Your task to perform on an android device: check battery use Image 0: 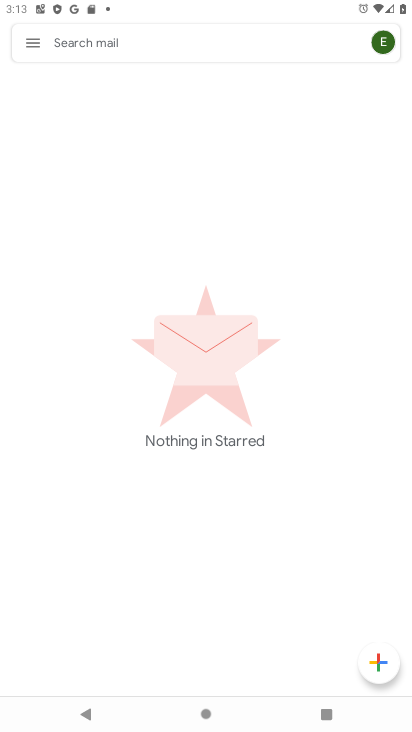
Step 0: press home button
Your task to perform on an android device: check battery use Image 1: 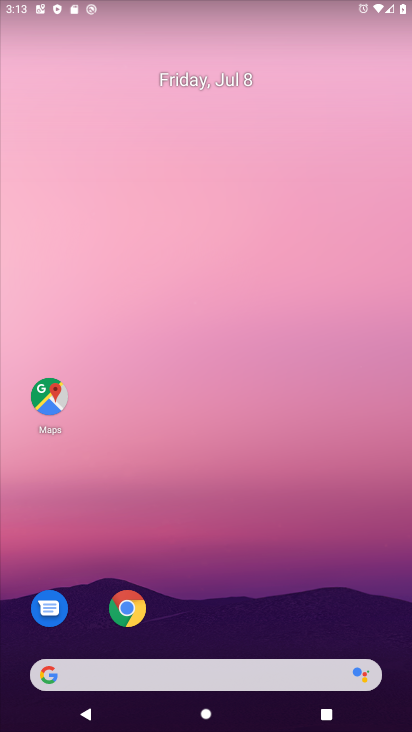
Step 1: drag from (295, 656) to (310, 95)
Your task to perform on an android device: check battery use Image 2: 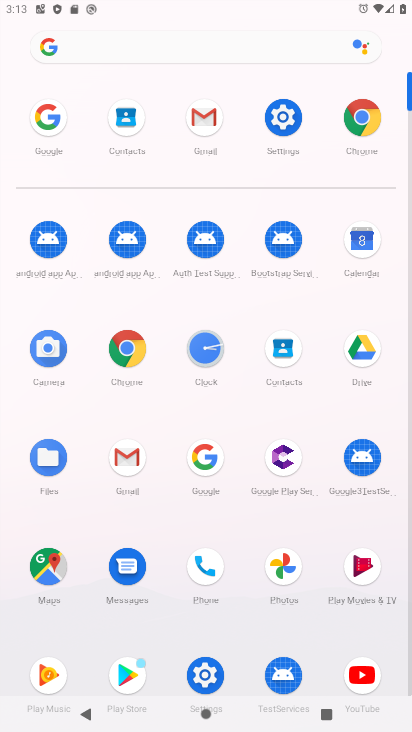
Step 2: click (279, 124)
Your task to perform on an android device: check battery use Image 3: 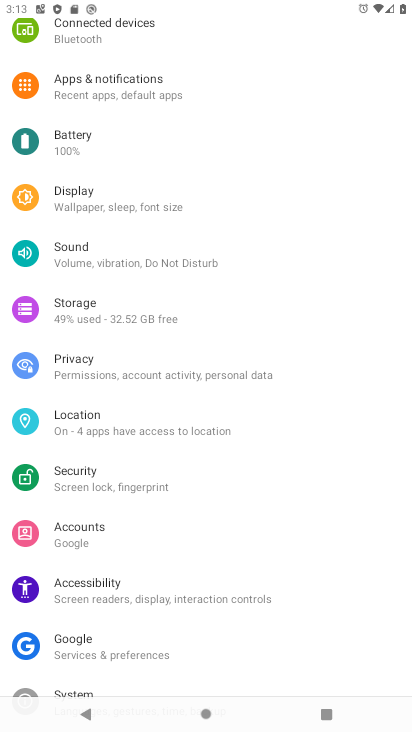
Step 3: drag from (208, 256) to (193, 424)
Your task to perform on an android device: check battery use Image 4: 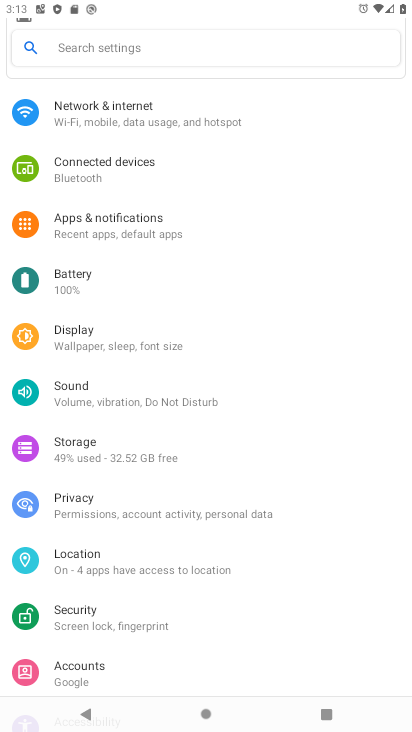
Step 4: click (135, 275)
Your task to perform on an android device: check battery use Image 5: 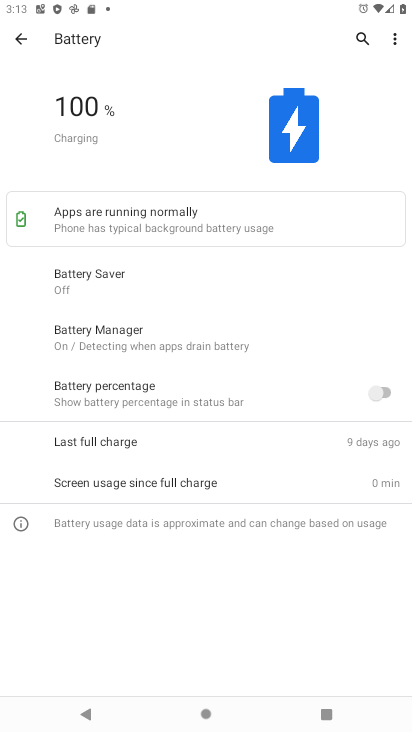
Step 5: task complete